Your task to perform on an android device: Play the last video I watched on Youtube Image 0: 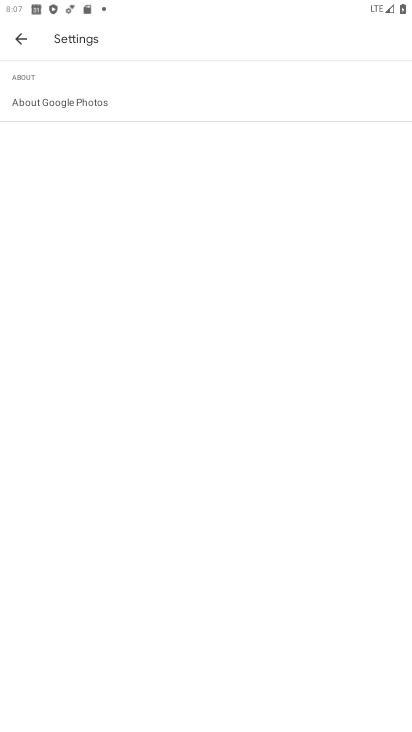
Step 0: press home button
Your task to perform on an android device: Play the last video I watched on Youtube Image 1: 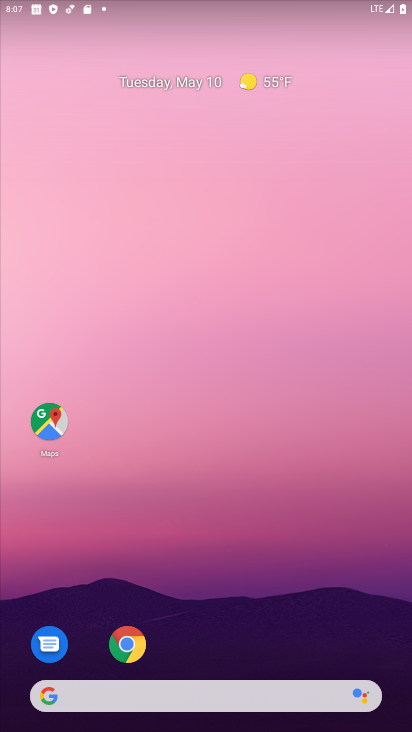
Step 1: drag from (208, 656) to (252, 55)
Your task to perform on an android device: Play the last video I watched on Youtube Image 2: 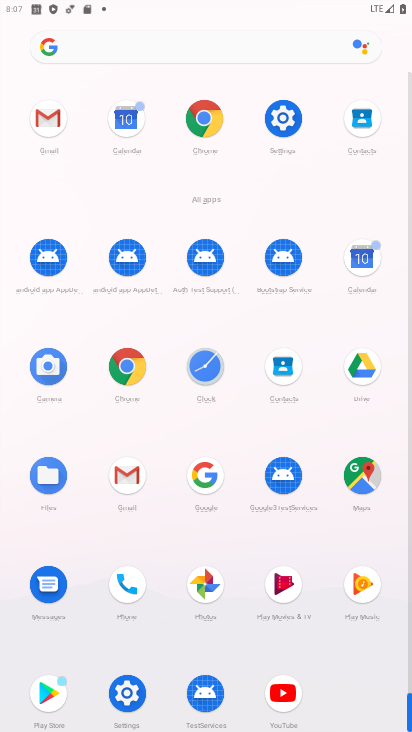
Step 2: click (286, 704)
Your task to perform on an android device: Play the last video I watched on Youtube Image 3: 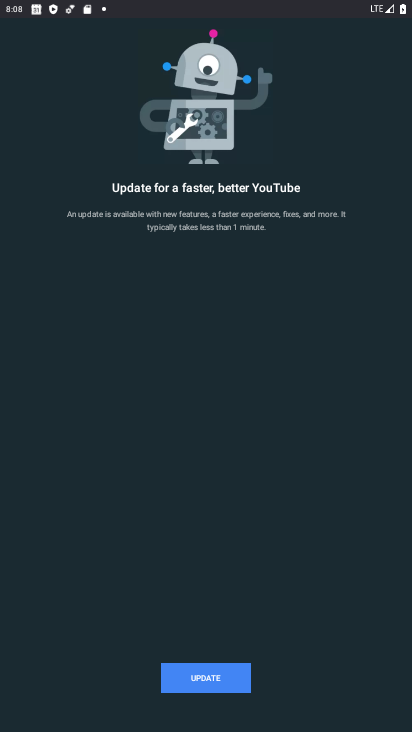
Step 3: task complete